Your task to perform on an android device: Open battery settings Image 0: 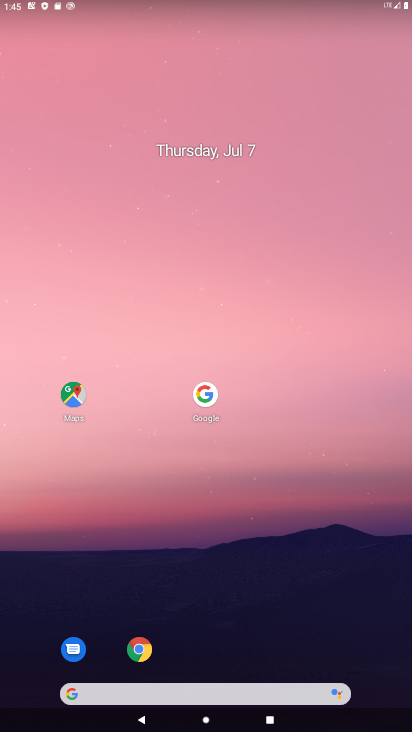
Step 0: press home button
Your task to perform on an android device: Open battery settings Image 1: 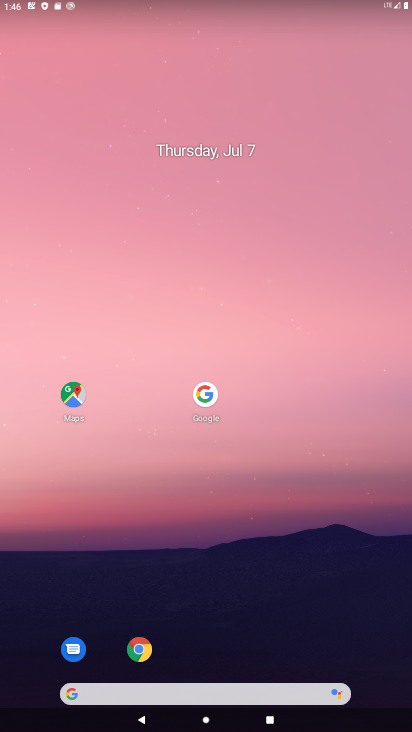
Step 1: drag from (334, 458) to (292, 10)
Your task to perform on an android device: Open battery settings Image 2: 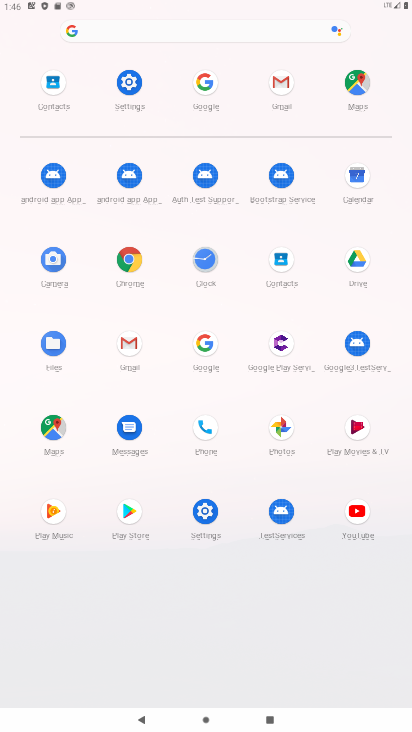
Step 2: click (206, 511)
Your task to perform on an android device: Open battery settings Image 3: 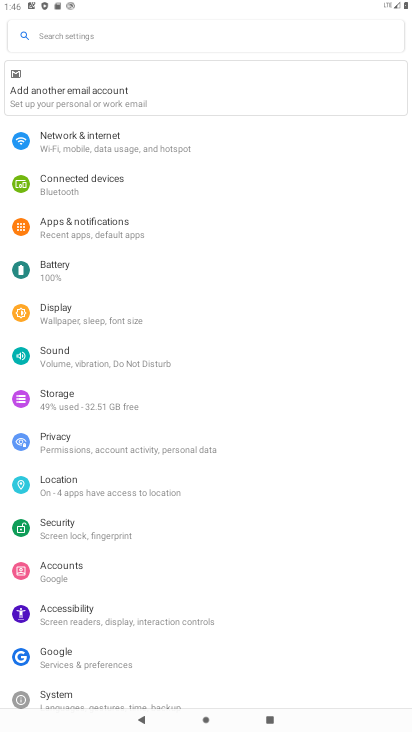
Step 3: click (63, 272)
Your task to perform on an android device: Open battery settings Image 4: 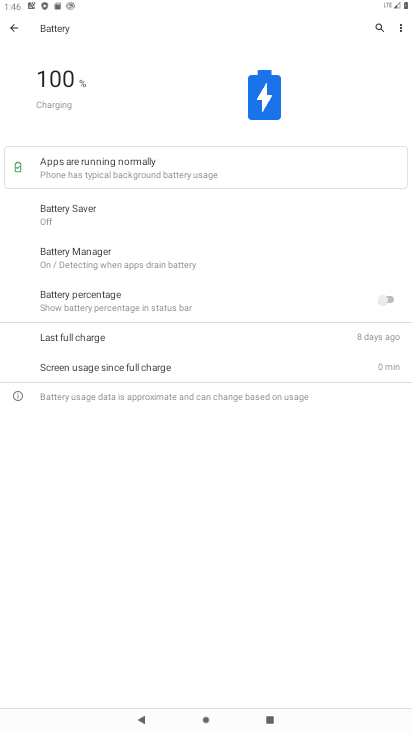
Step 4: task complete